Your task to perform on an android device: open sync settings in chrome Image 0: 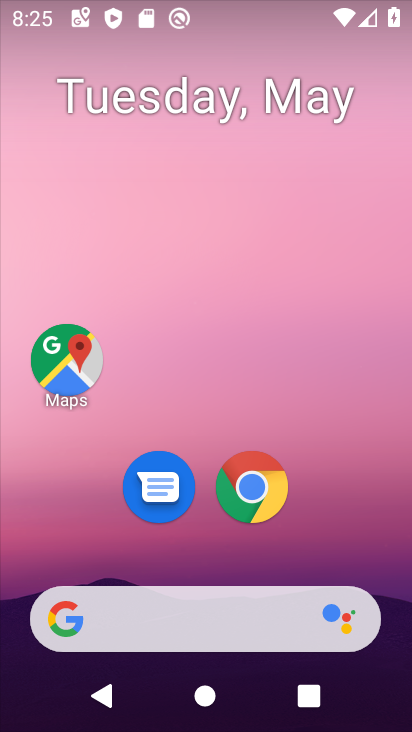
Step 0: drag from (358, 487) to (372, 177)
Your task to perform on an android device: open sync settings in chrome Image 1: 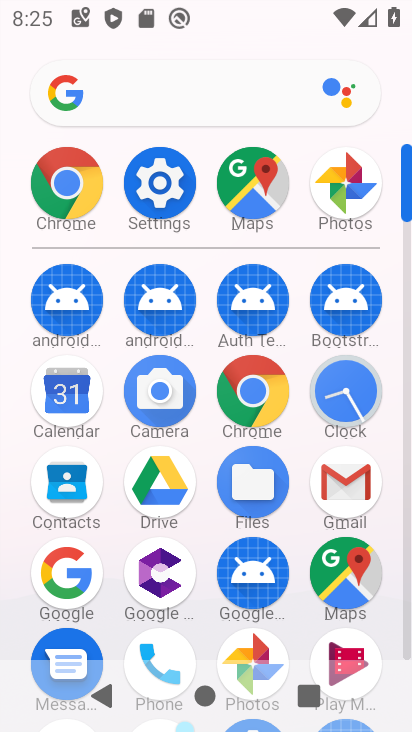
Step 1: click (271, 399)
Your task to perform on an android device: open sync settings in chrome Image 2: 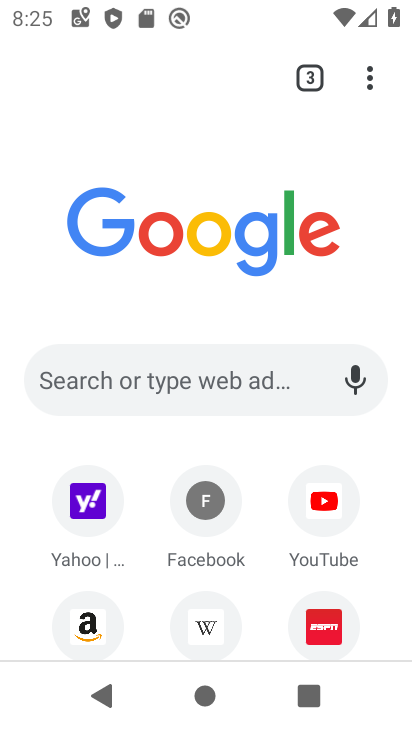
Step 2: click (370, 81)
Your task to perform on an android device: open sync settings in chrome Image 3: 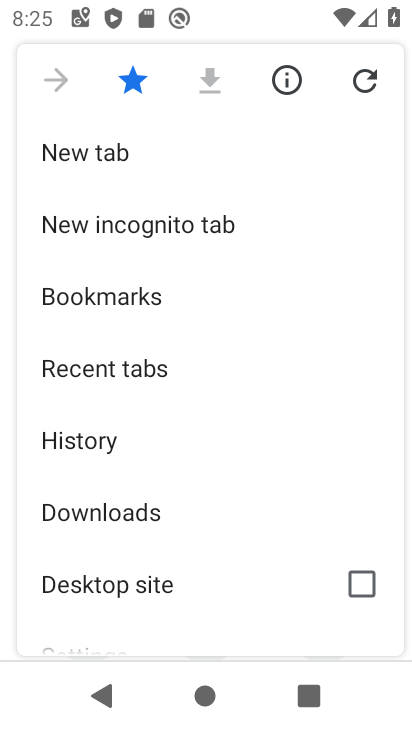
Step 3: drag from (232, 462) to (248, 392)
Your task to perform on an android device: open sync settings in chrome Image 4: 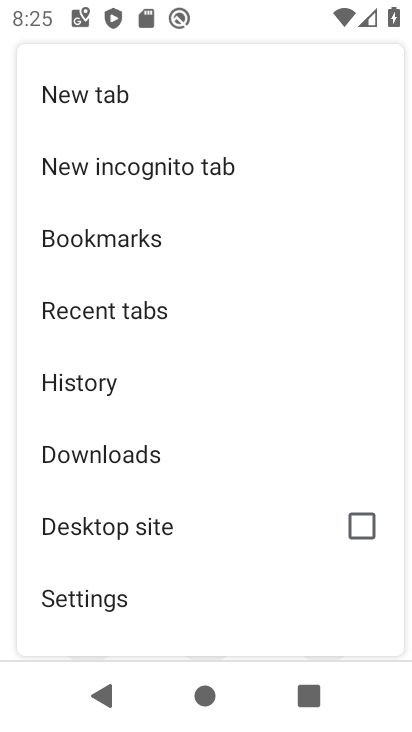
Step 4: drag from (239, 497) to (256, 420)
Your task to perform on an android device: open sync settings in chrome Image 5: 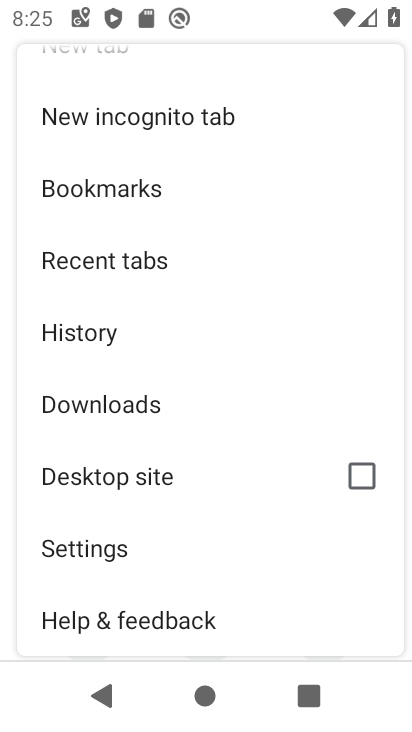
Step 5: drag from (247, 490) to (254, 420)
Your task to perform on an android device: open sync settings in chrome Image 6: 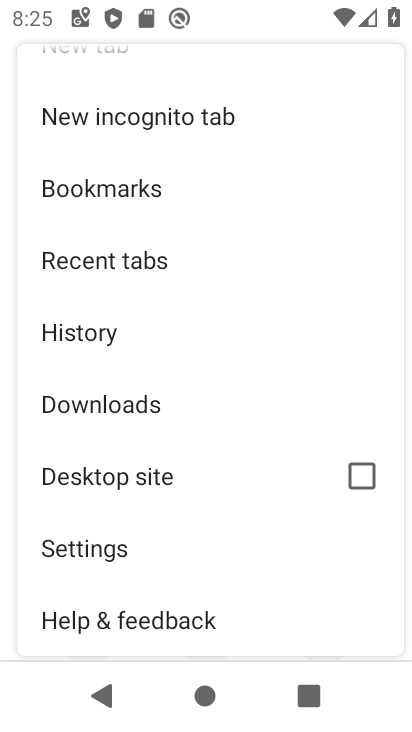
Step 6: drag from (242, 498) to (230, 382)
Your task to perform on an android device: open sync settings in chrome Image 7: 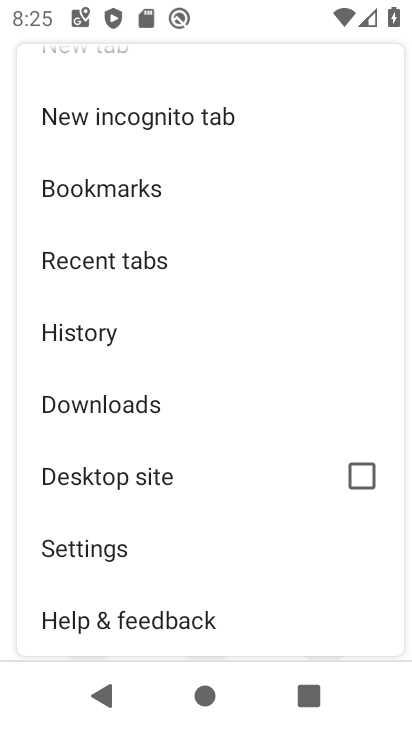
Step 7: click (151, 567)
Your task to perform on an android device: open sync settings in chrome Image 8: 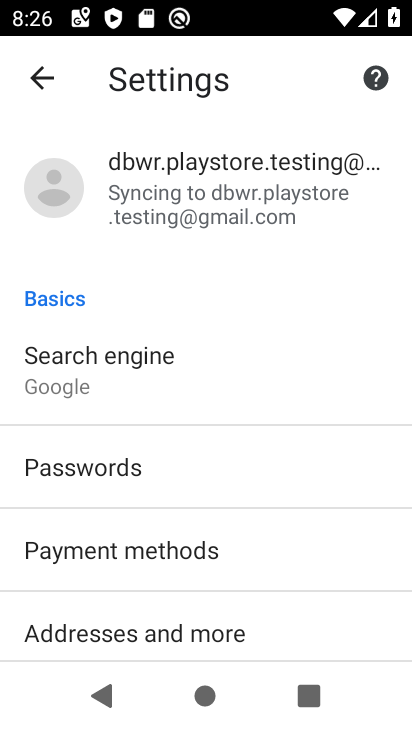
Step 8: drag from (311, 553) to (323, 433)
Your task to perform on an android device: open sync settings in chrome Image 9: 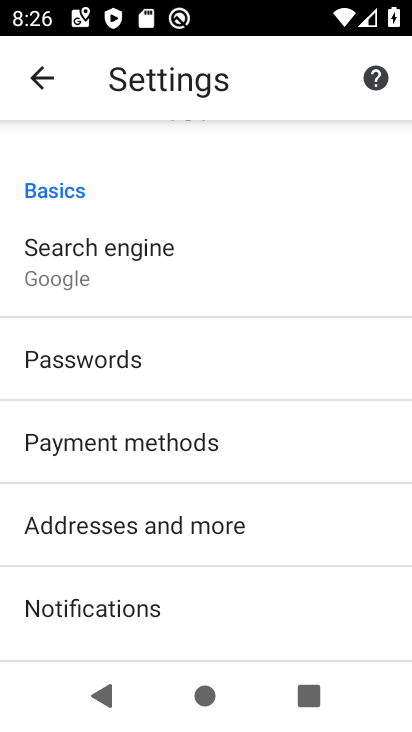
Step 9: drag from (325, 548) to (336, 462)
Your task to perform on an android device: open sync settings in chrome Image 10: 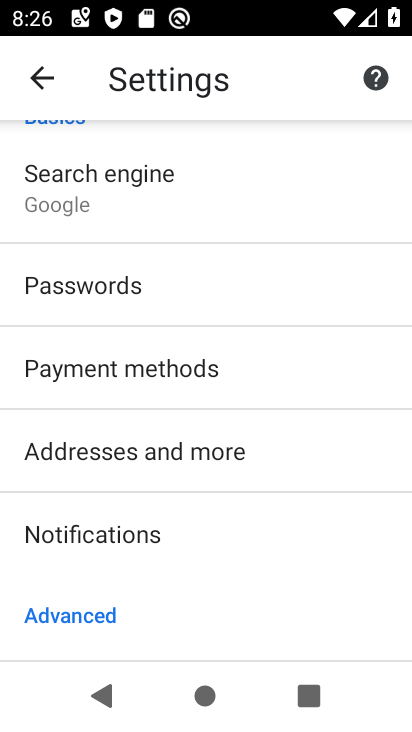
Step 10: drag from (327, 510) to (332, 418)
Your task to perform on an android device: open sync settings in chrome Image 11: 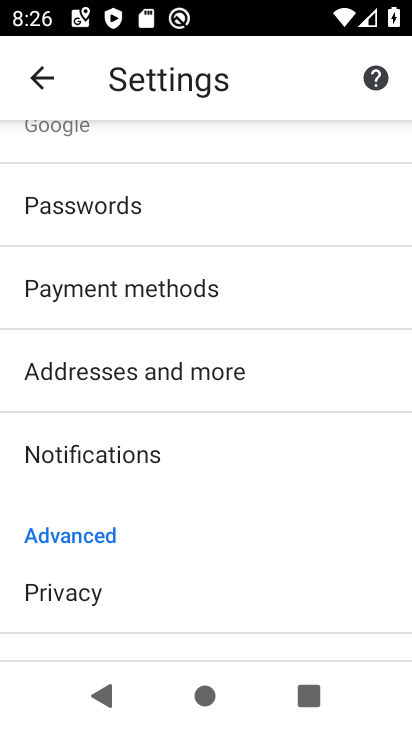
Step 11: drag from (331, 516) to (323, 389)
Your task to perform on an android device: open sync settings in chrome Image 12: 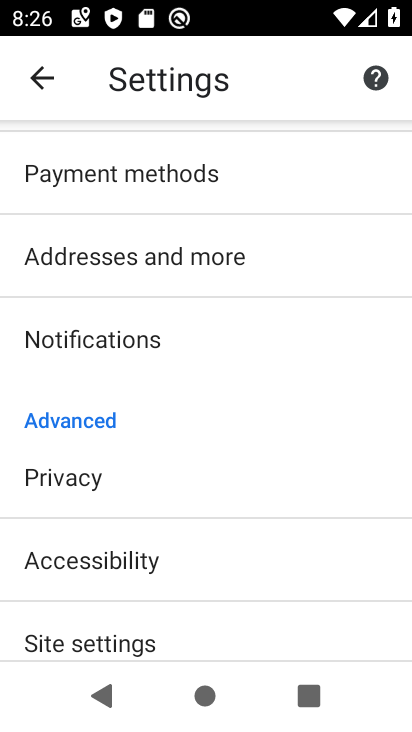
Step 12: drag from (313, 504) to (327, 373)
Your task to perform on an android device: open sync settings in chrome Image 13: 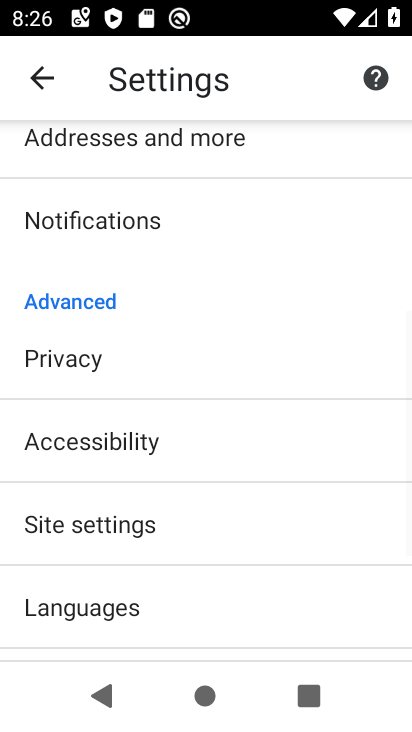
Step 13: drag from (311, 509) to (298, 418)
Your task to perform on an android device: open sync settings in chrome Image 14: 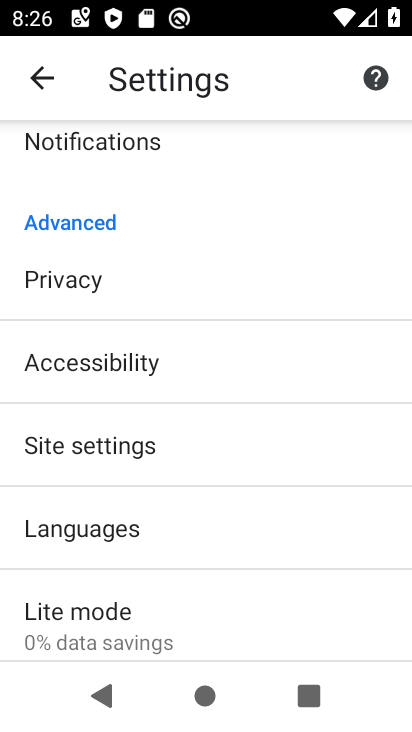
Step 14: drag from (304, 553) to (316, 430)
Your task to perform on an android device: open sync settings in chrome Image 15: 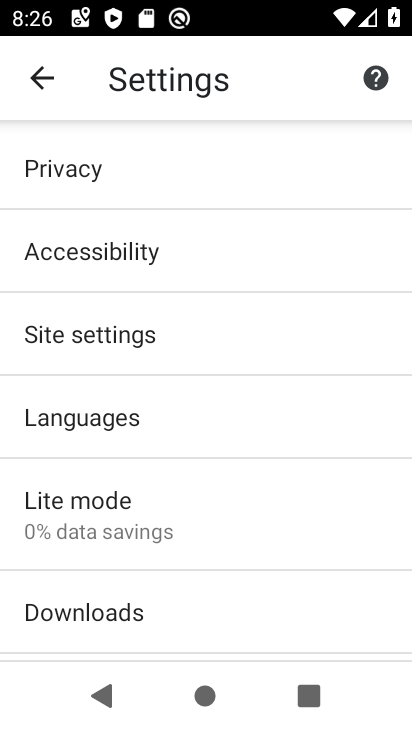
Step 15: click (244, 349)
Your task to perform on an android device: open sync settings in chrome Image 16: 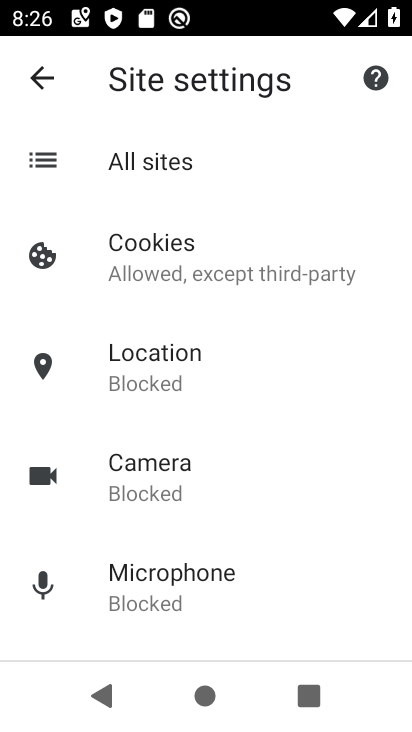
Step 16: drag from (336, 504) to (337, 421)
Your task to perform on an android device: open sync settings in chrome Image 17: 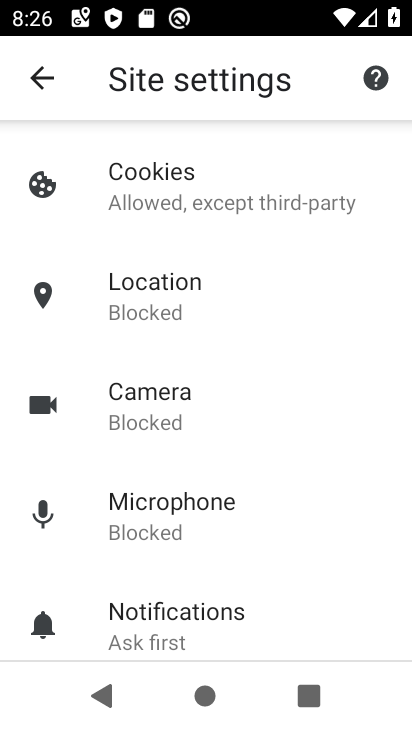
Step 17: drag from (327, 497) to (313, 409)
Your task to perform on an android device: open sync settings in chrome Image 18: 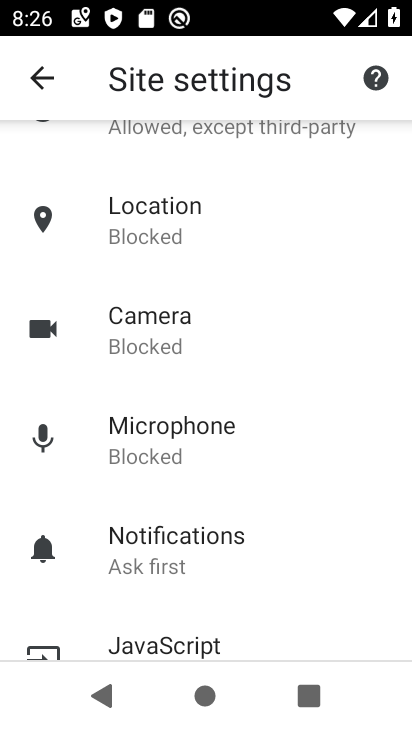
Step 18: drag from (317, 506) to (318, 406)
Your task to perform on an android device: open sync settings in chrome Image 19: 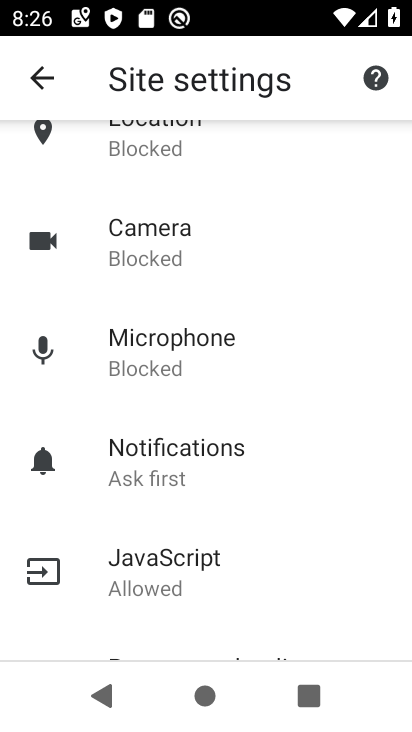
Step 19: drag from (310, 547) to (316, 427)
Your task to perform on an android device: open sync settings in chrome Image 20: 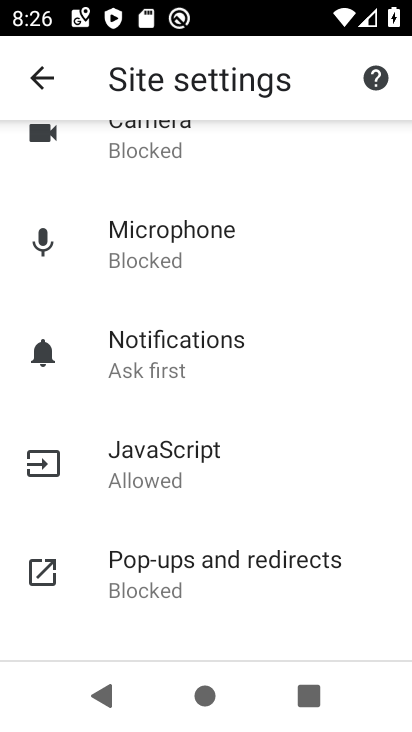
Step 20: drag from (339, 581) to (339, 465)
Your task to perform on an android device: open sync settings in chrome Image 21: 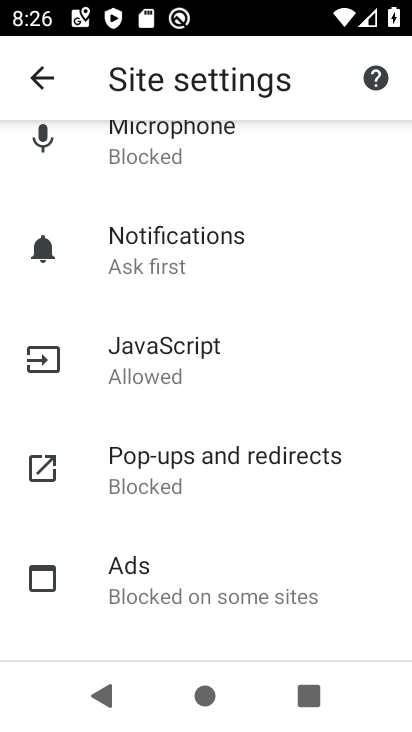
Step 21: drag from (345, 587) to (349, 472)
Your task to perform on an android device: open sync settings in chrome Image 22: 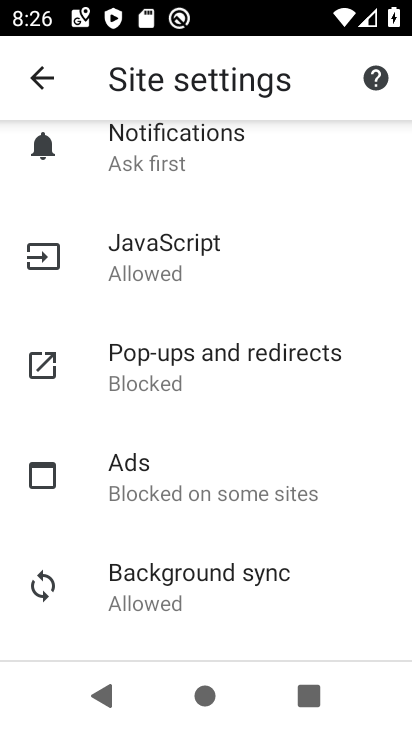
Step 22: drag from (356, 590) to (352, 474)
Your task to perform on an android device: open sync settings in chrome Image 23: 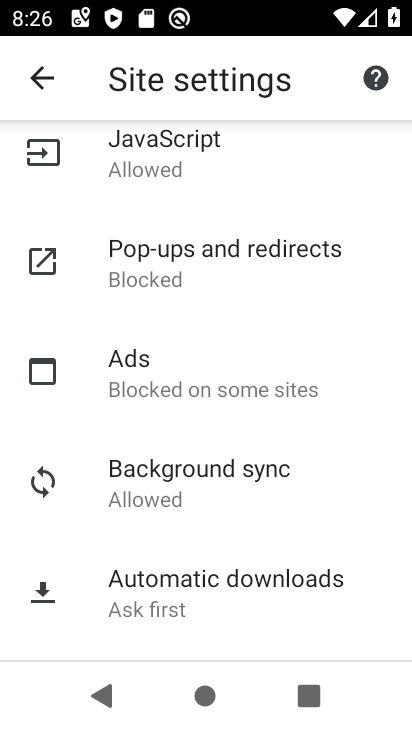
Step 23: click (262, 485)
Your task to perform on an android device: open sync settings in chrome Image 24: 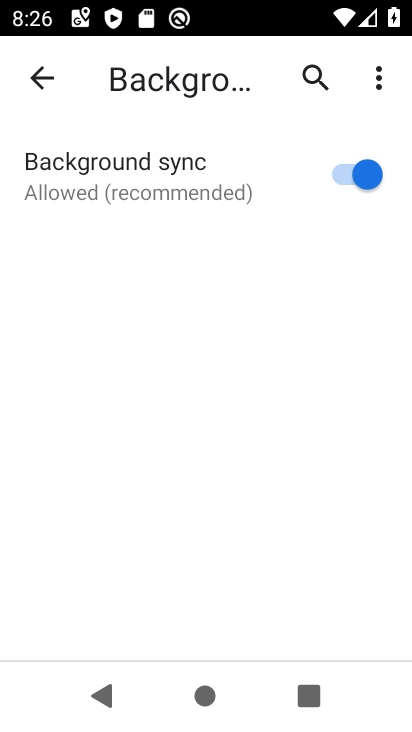
Step 24: task complete